Your task to perform on an android device: delete browsing data in the chrome app Image 0: 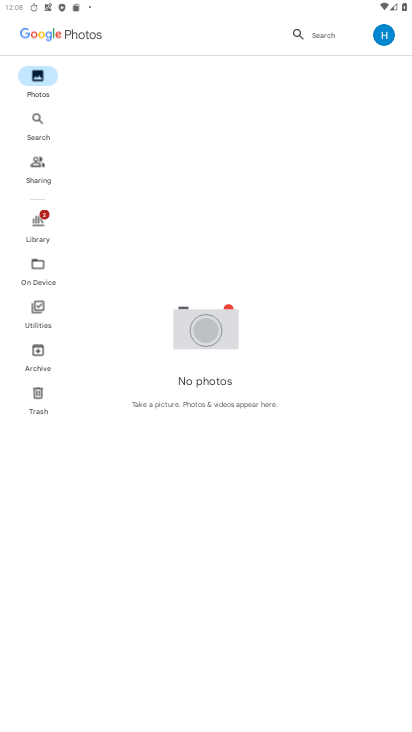
Step 0: press home button
Your task to perform on an android device: delete browsing data in the chrome app Image 1: 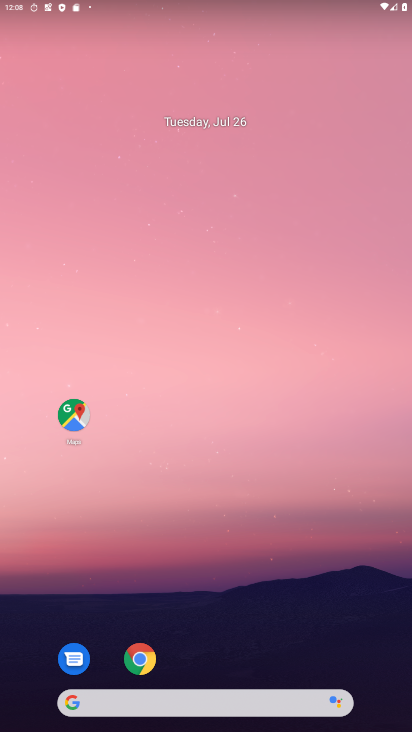
Step 1: click (131, 658)
Your task to perform on an android device: delete browsing data in the chrome app Image 2: 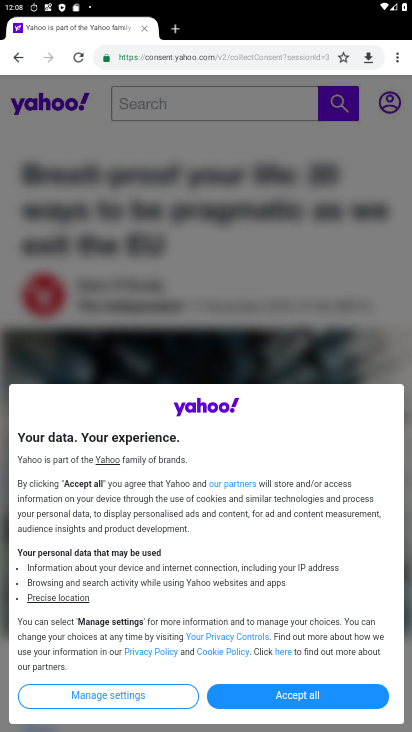
Step 2: click (399, 58)
Your task to perform on an android device: delete browsing data in the chrome app Image 3: 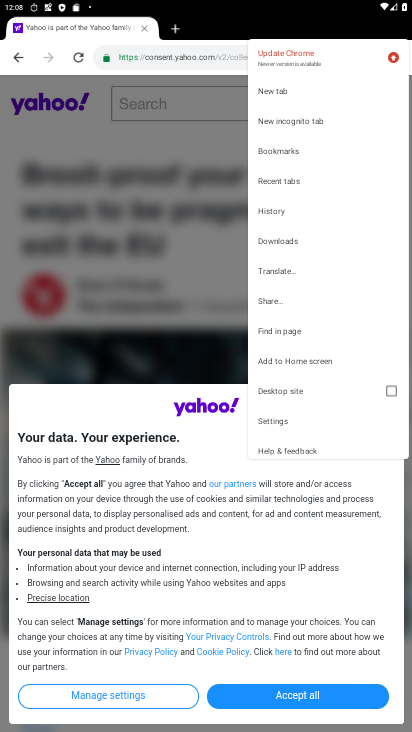
Step 3: click (271, 206)
Your task to perform on an android device: delete browsing data in the chrome app Image 4: 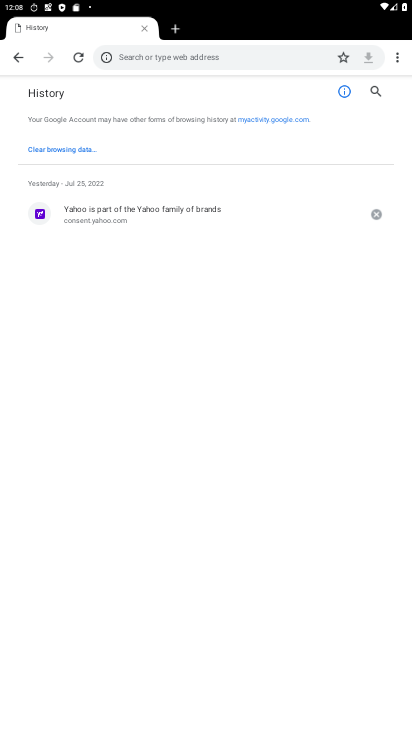
Step 4: click (81, 147)
Your task to perform on an android device: delete browsing data in the chrome app Image 5: 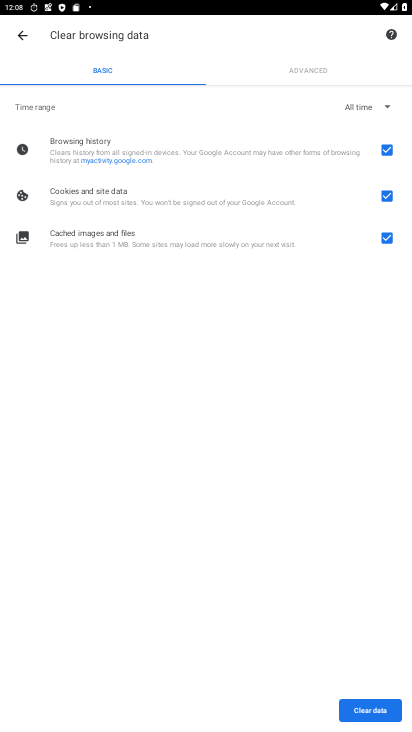
Step 5: click (351, 712)
Your task to perform on an android device: delete browsing data in the chrome app Image 6: 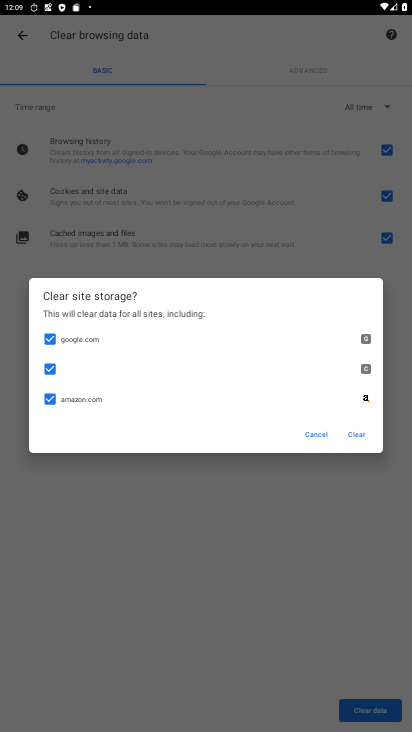
Step 6: click (361, 434)
Your task to perform on an android device: delete browsing data in the chrome app Image 7: 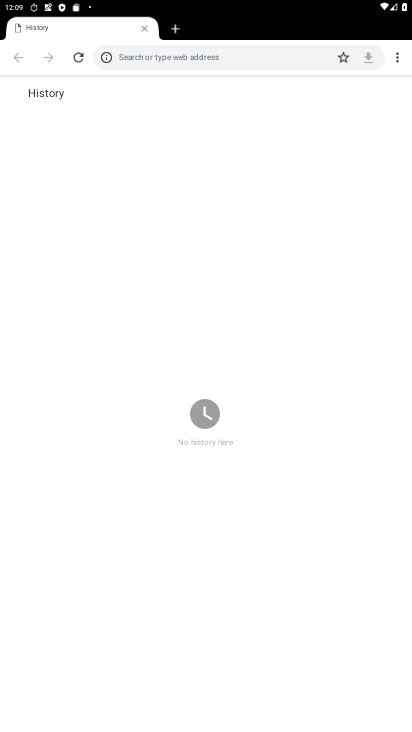
Step 7: task complete